Your task to perform on an android device: What's the news in Peru? Image 0: 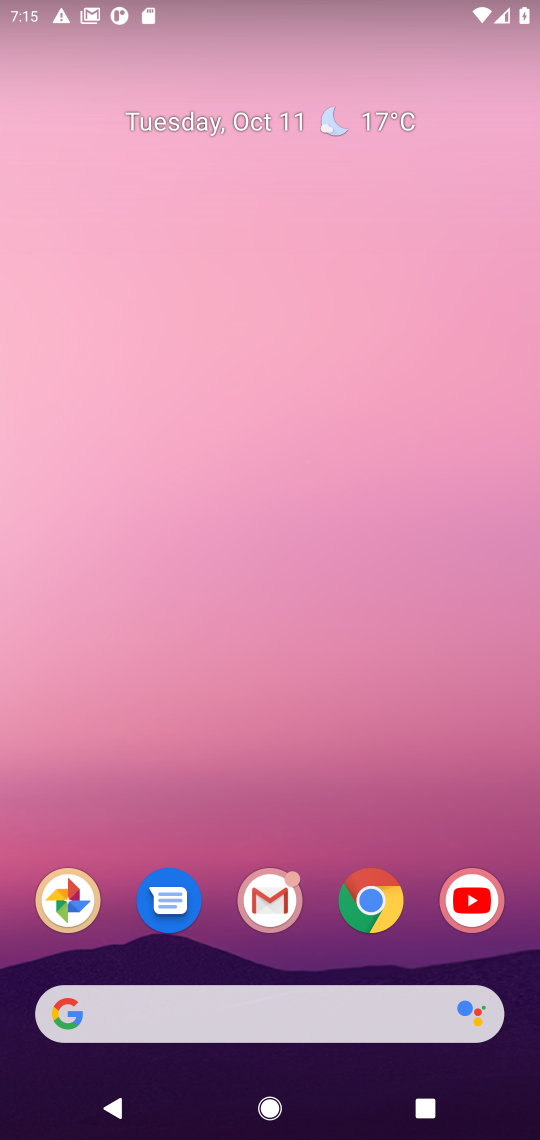
Step 0: click (379, 910)
Your task to perform on an android device: What's the news in Peru? Image 1: 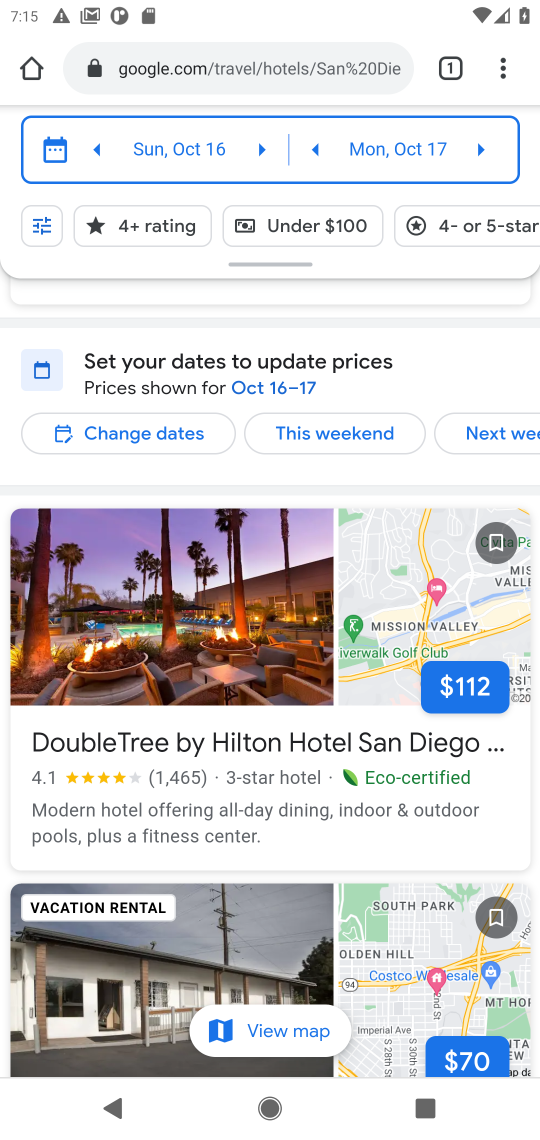
Step 1: click (323, 55)
Your task to perform on an android device: What's the news in Peru? Image 2: 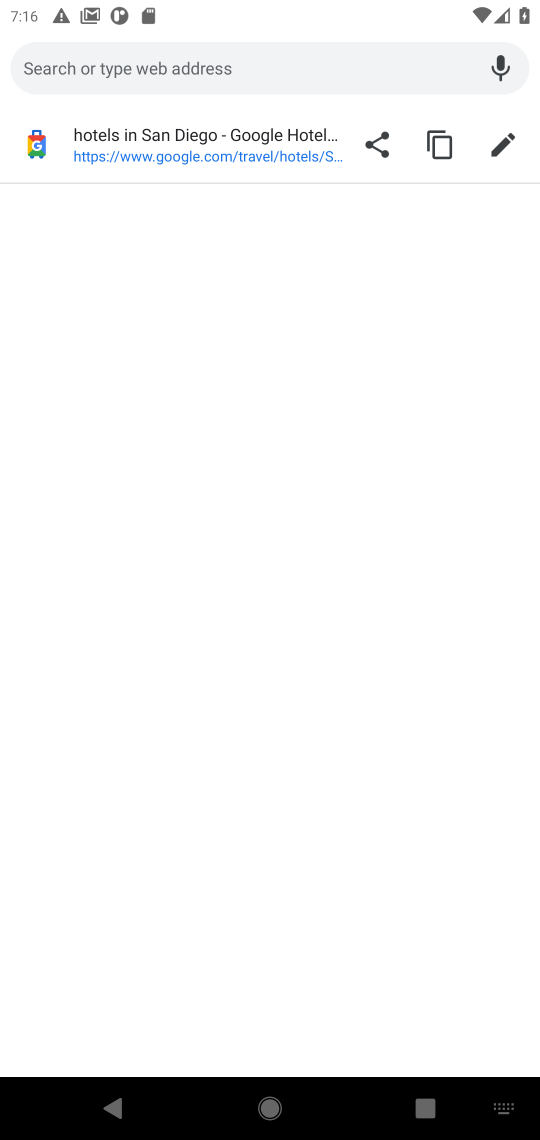
Step 2: type "news in Peru"
Your task to perform on an android device: What's the news in Peru? Image 3: 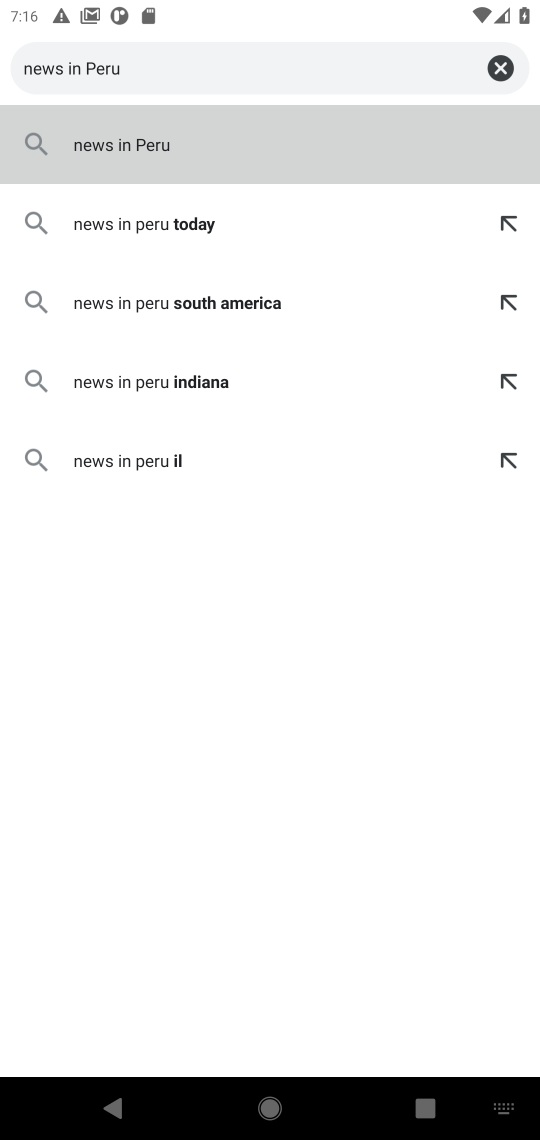
Step 3: press enter
Your task to perform on an android device: What's the news in Peru? Image 4: 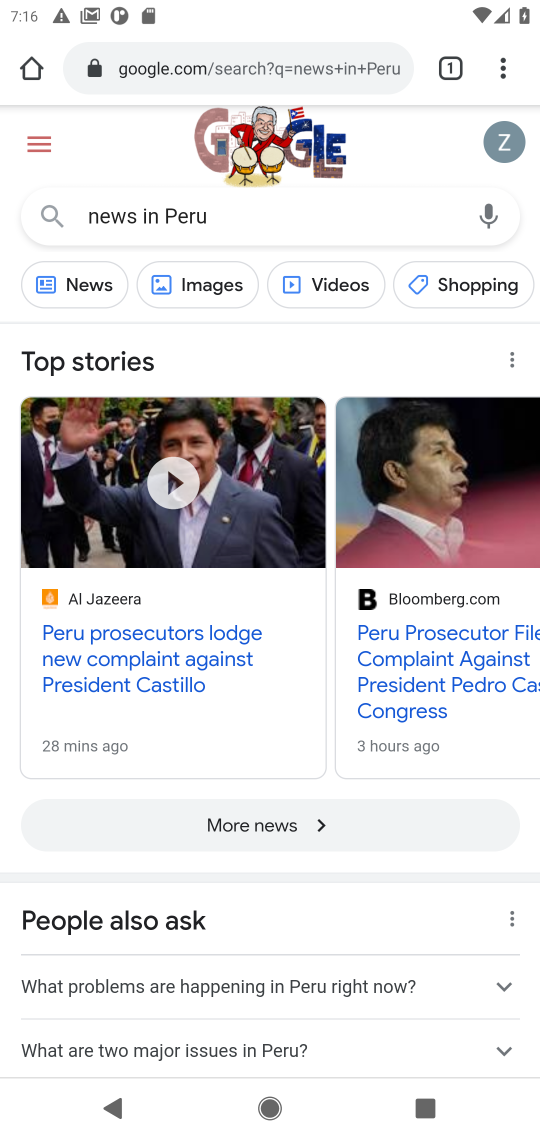
Step 4: click (92, 271)
Your task to perform on an android device: What's the news in Peru? Image 5: 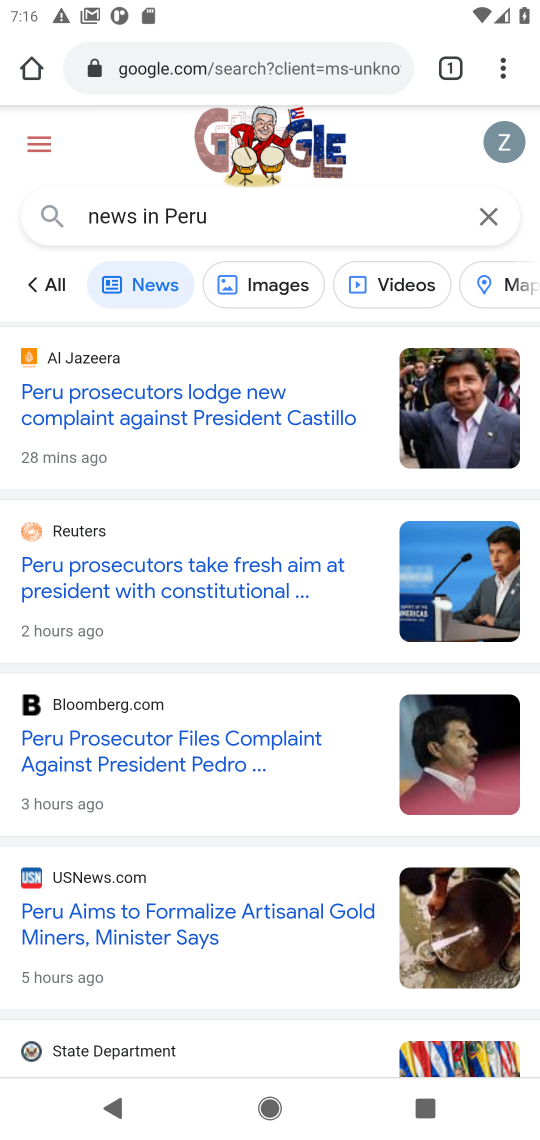
Step 5: task complete